Your task to perform on an android device: Show me popular videos on Youtube Image 0: 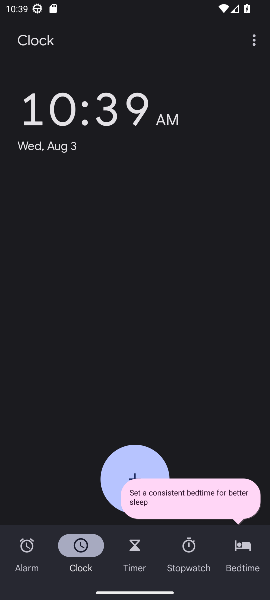
Step 0: task complete